Your task to perform on an android device: turn off improve location accuracy Image 0: 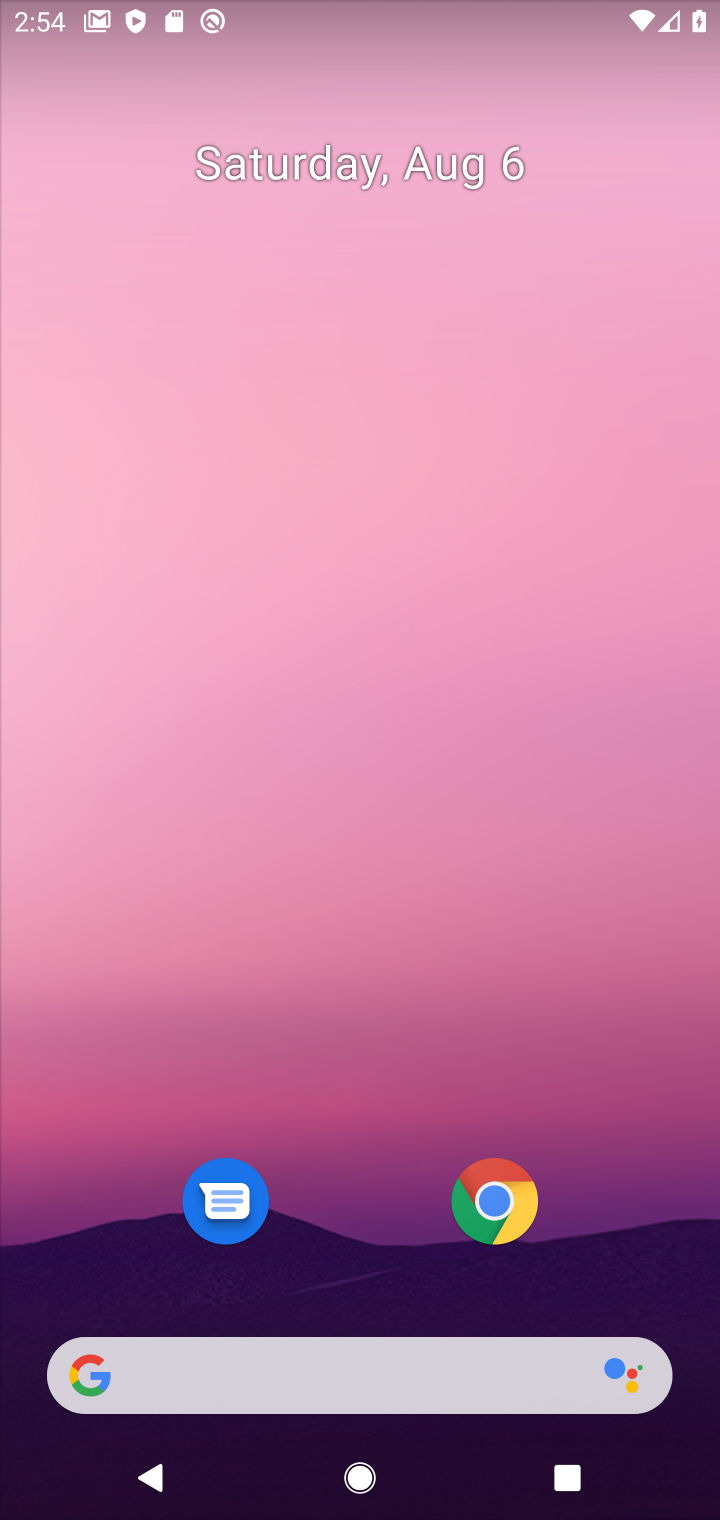
Step 0: press home button
Your task to perform on an android device: turn off improve location accuracy Image 1: 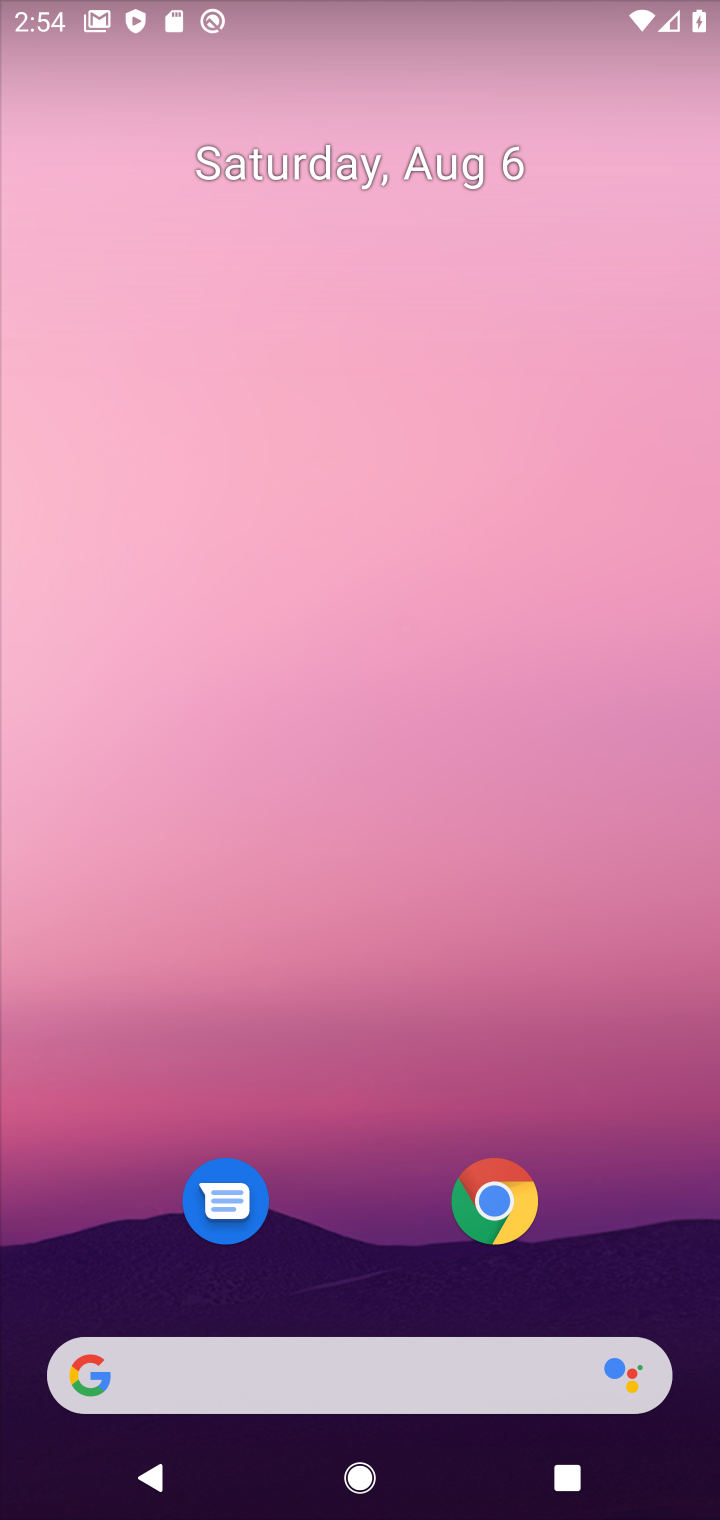
Step 1: click (370, 488)
Your task to perform on an android device: turn off improve location accuracy Image 2: 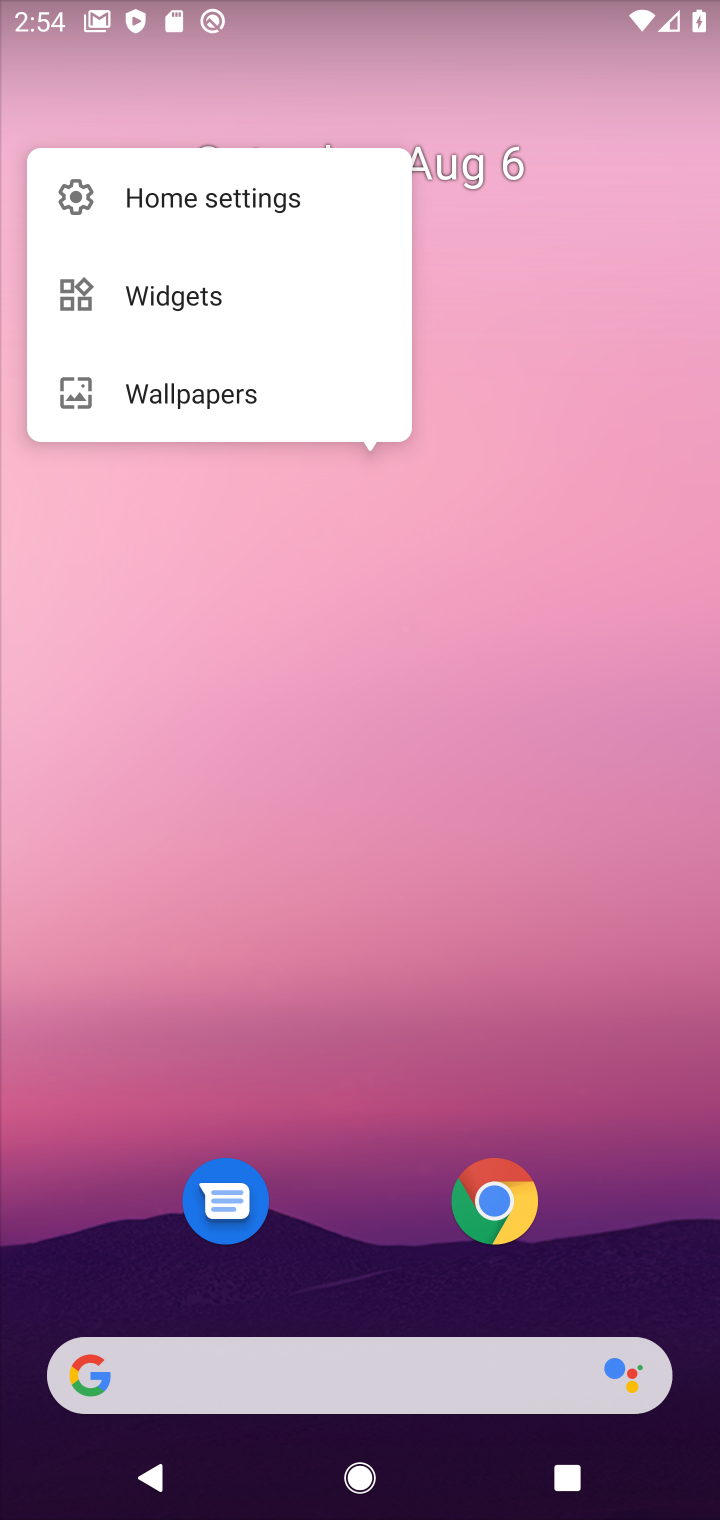
Step 2: click (362, 1482)
Your task to perform on an android device: turn off improve location accuracy Image 3: 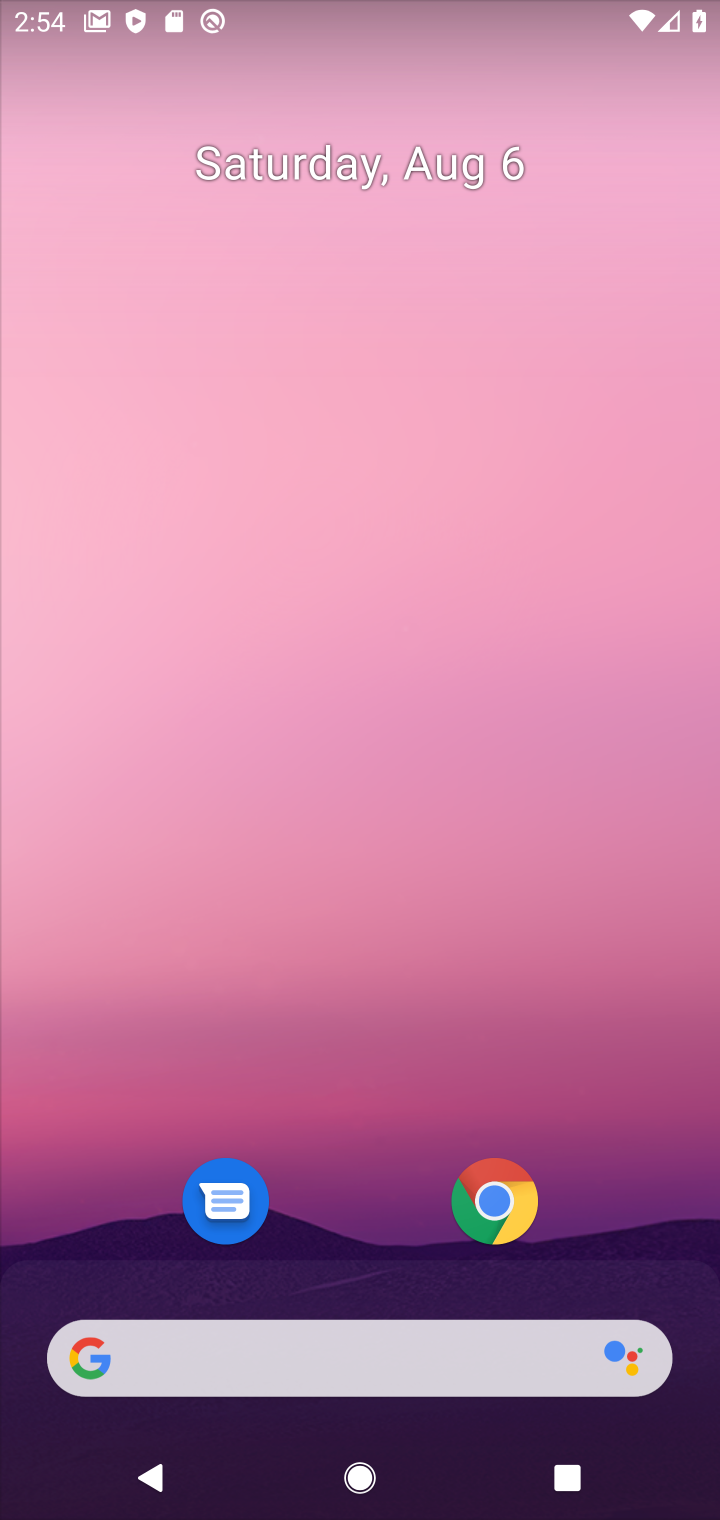
Step 3: drag from (65, 1416) to (458, 80)
Your task to perform on an android device: turn off improve location accuracy Image 4: 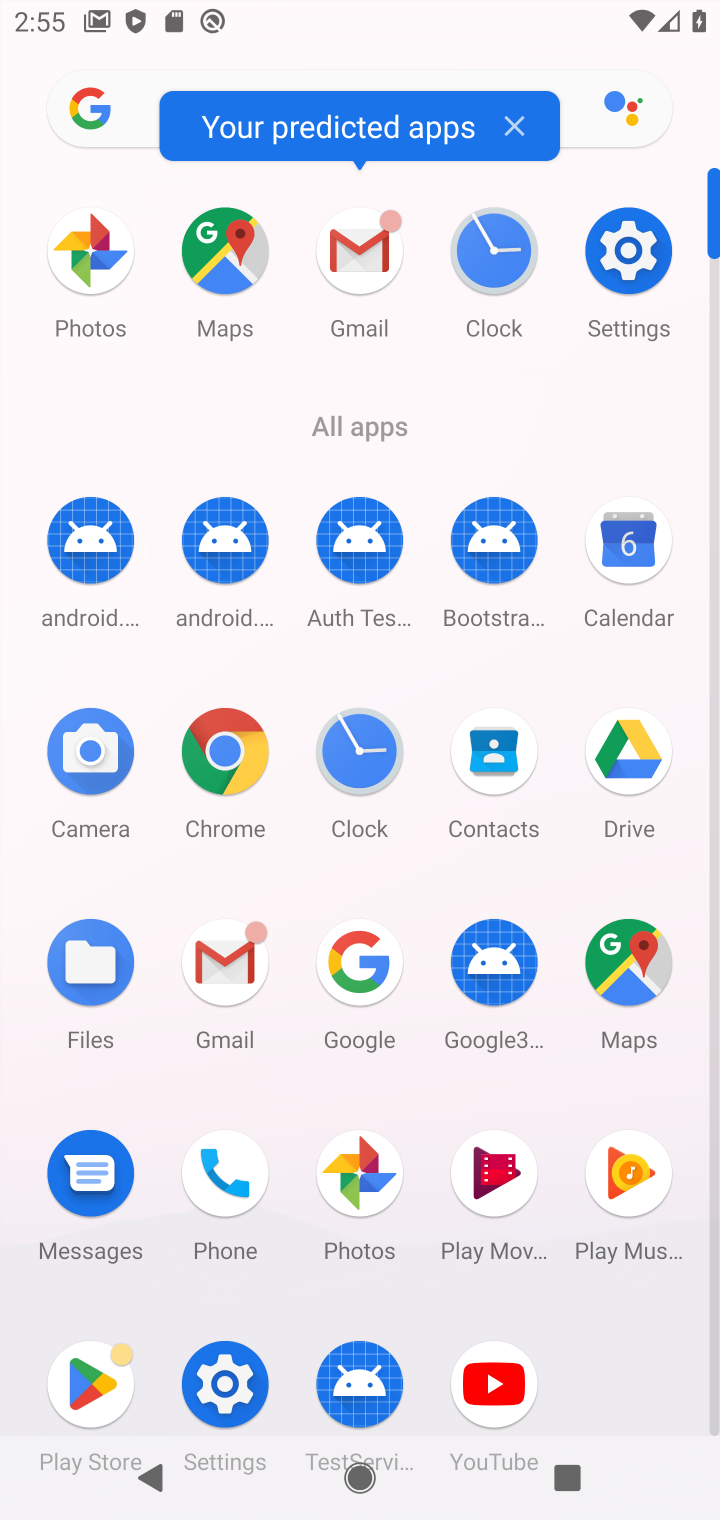
Step 4: click (639, 249)
Your task to perform on an android device: turn off improve location accuracy Image 5: 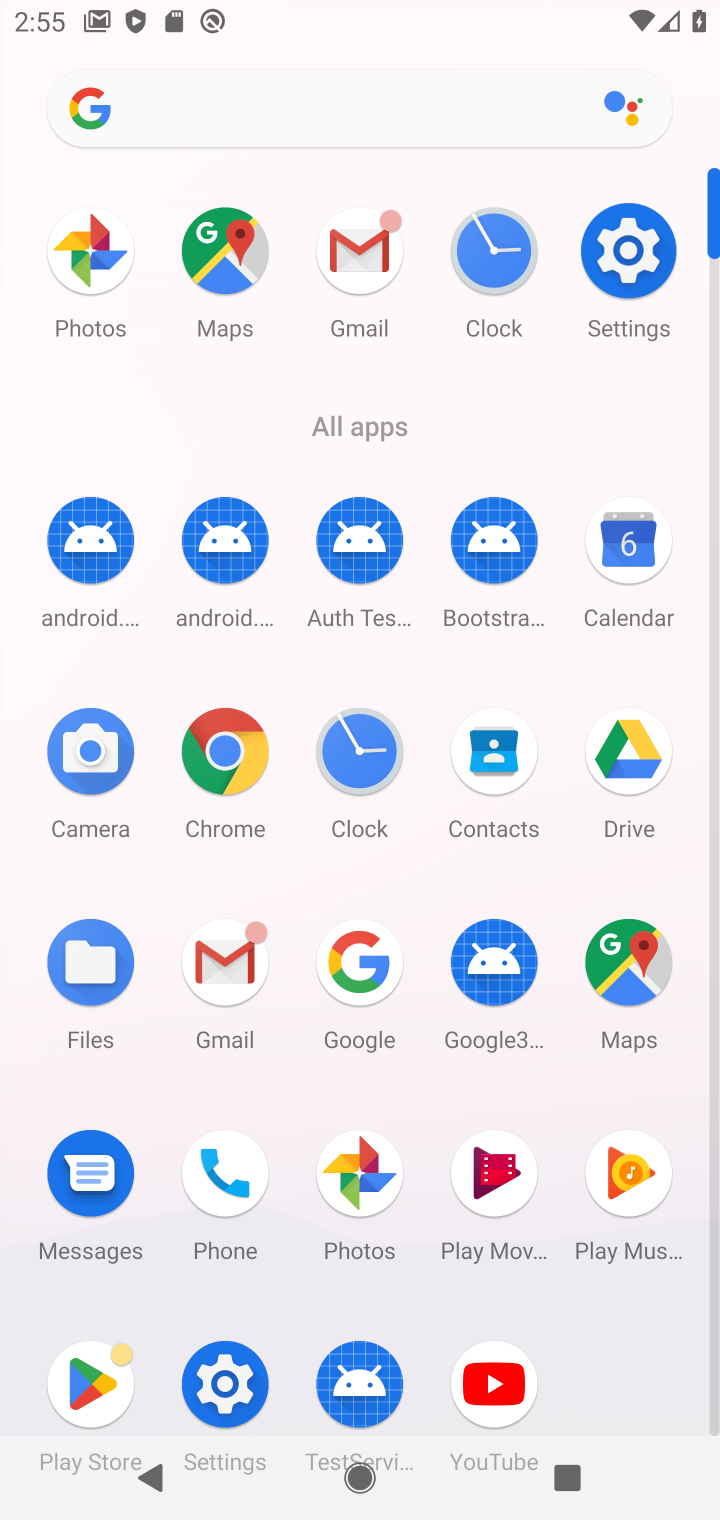
Step 5: click (639, 249)
Your task to perform on an android device: turn off improve location accuracy Image 6: 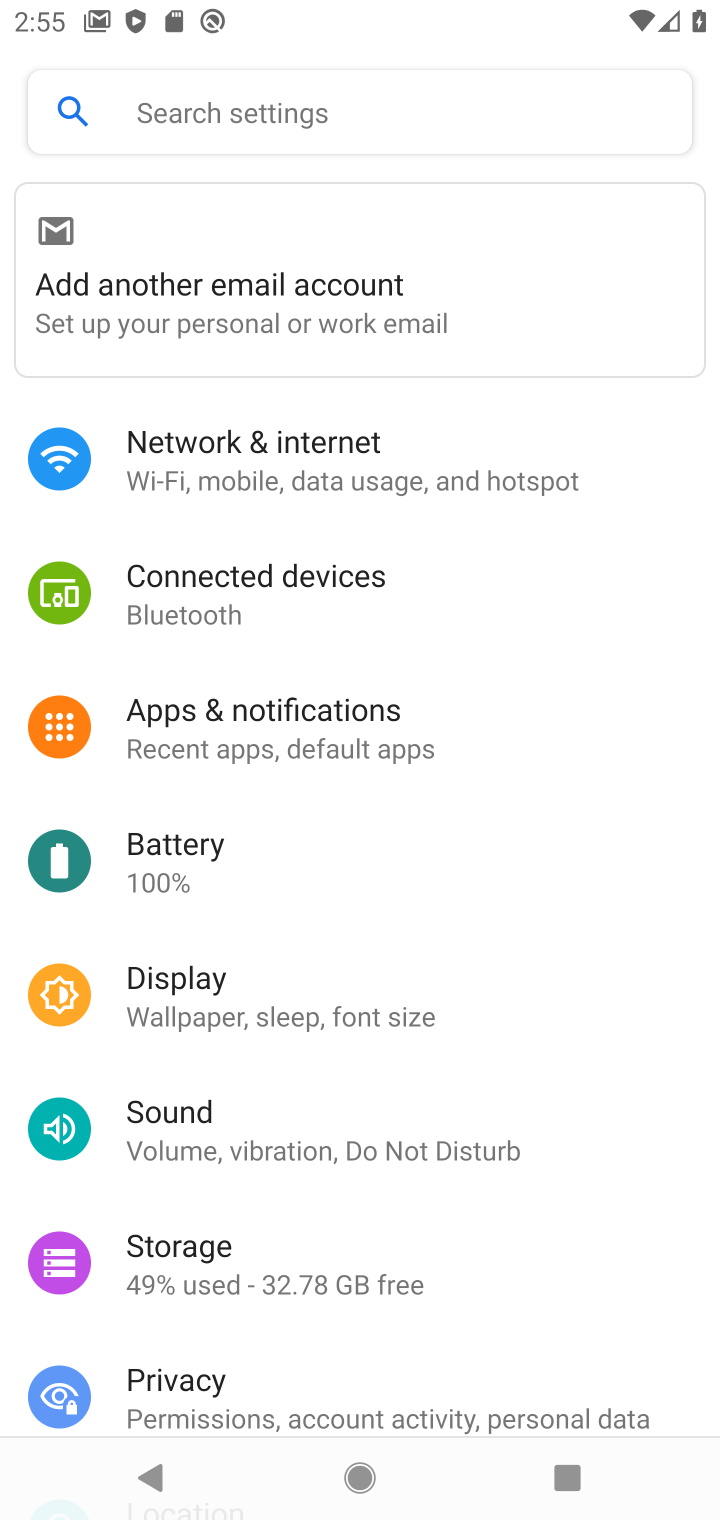
Step 6: drag from (490, 244) to (691, 1105)
Your task to perform on an android device: turn off improve location accuracy Image 7: 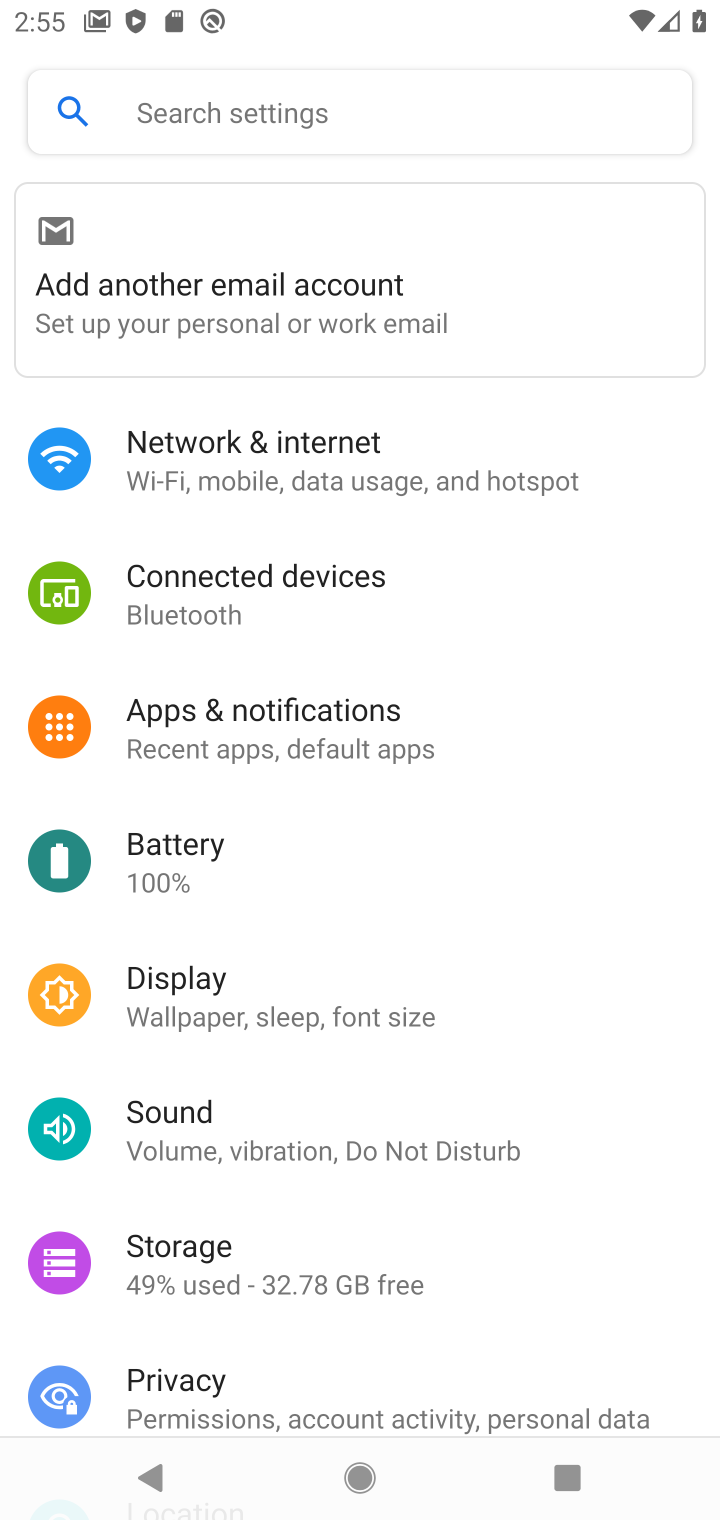
Step 7: drag from (370, 1059) to (501, 33)
Your task to perform on an android device: turn off improve location accuracy Image 8: 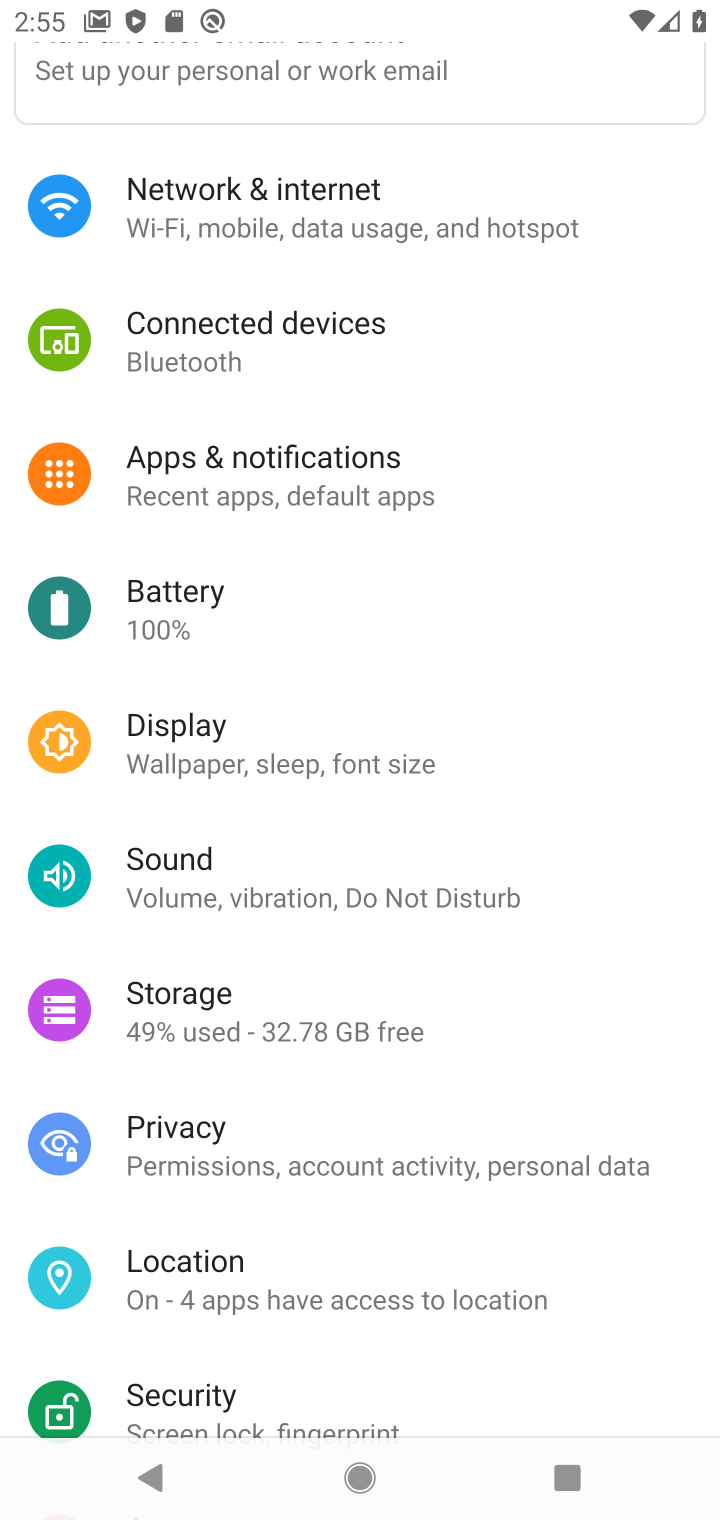
Step 8: click (300, 1270)
Your task to perform on an android device: turn off improve location accuracy Image 9: 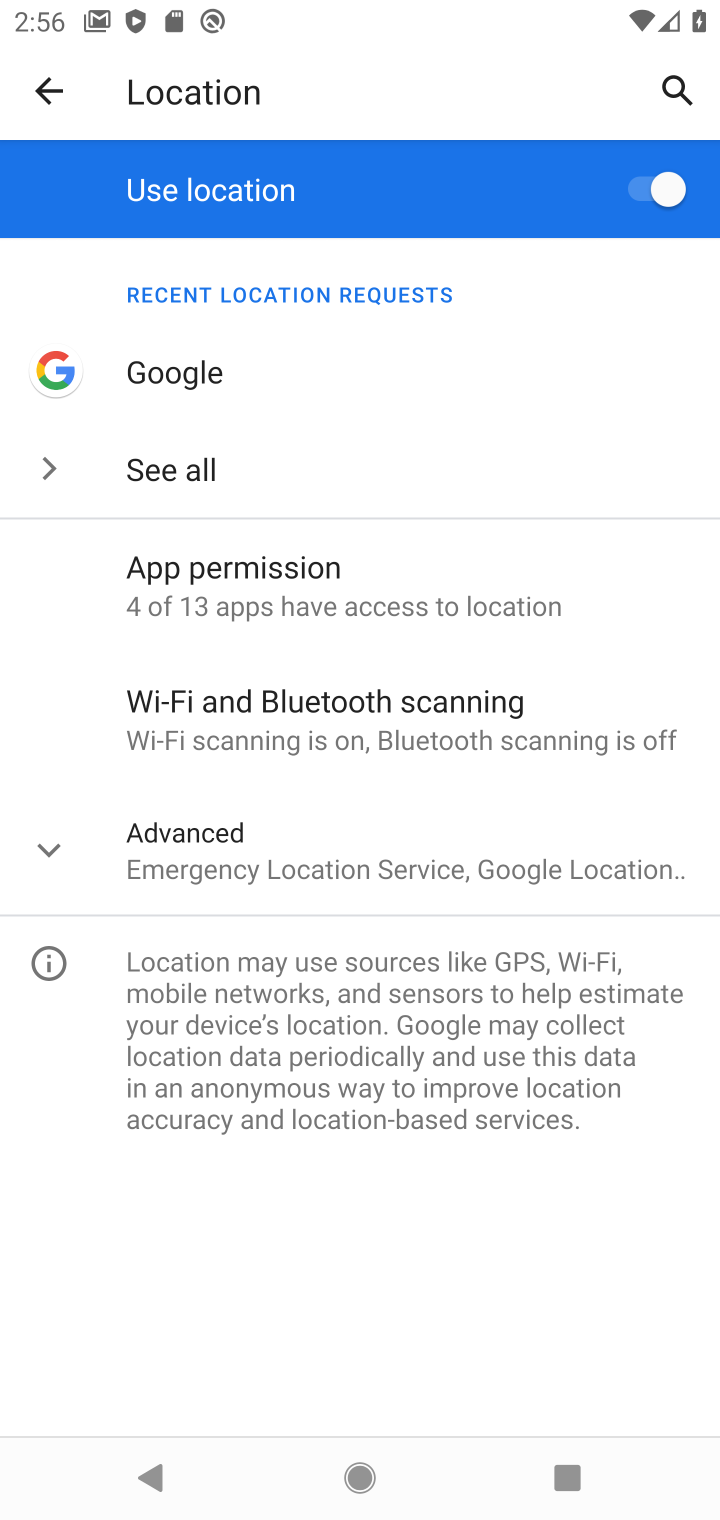
Step 9: click (329, 843)
Your task to perform on an android device: turn off improve location accuracy Image 10: 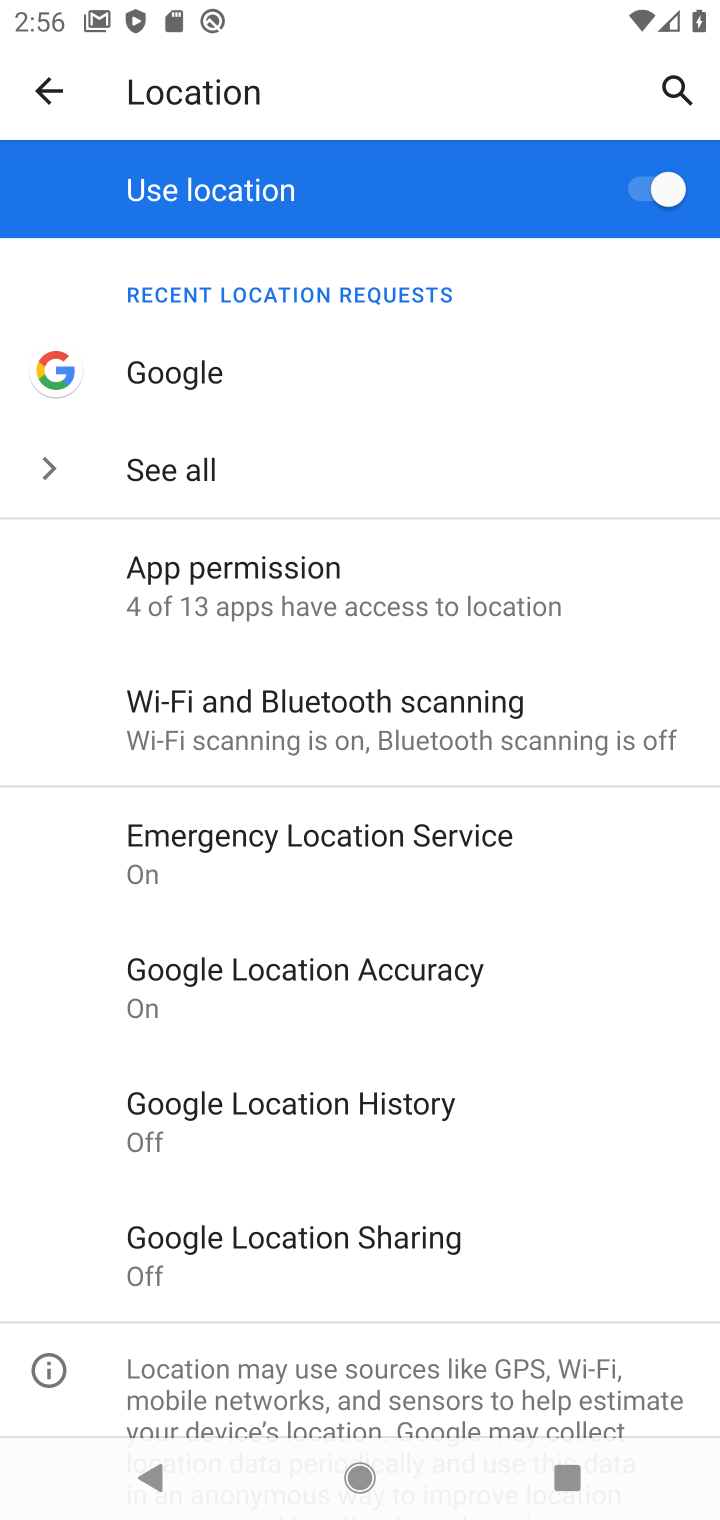
Step 10: click (416, 964)
Your task to perform on an android device: turn off improve location accuracy Image 11: 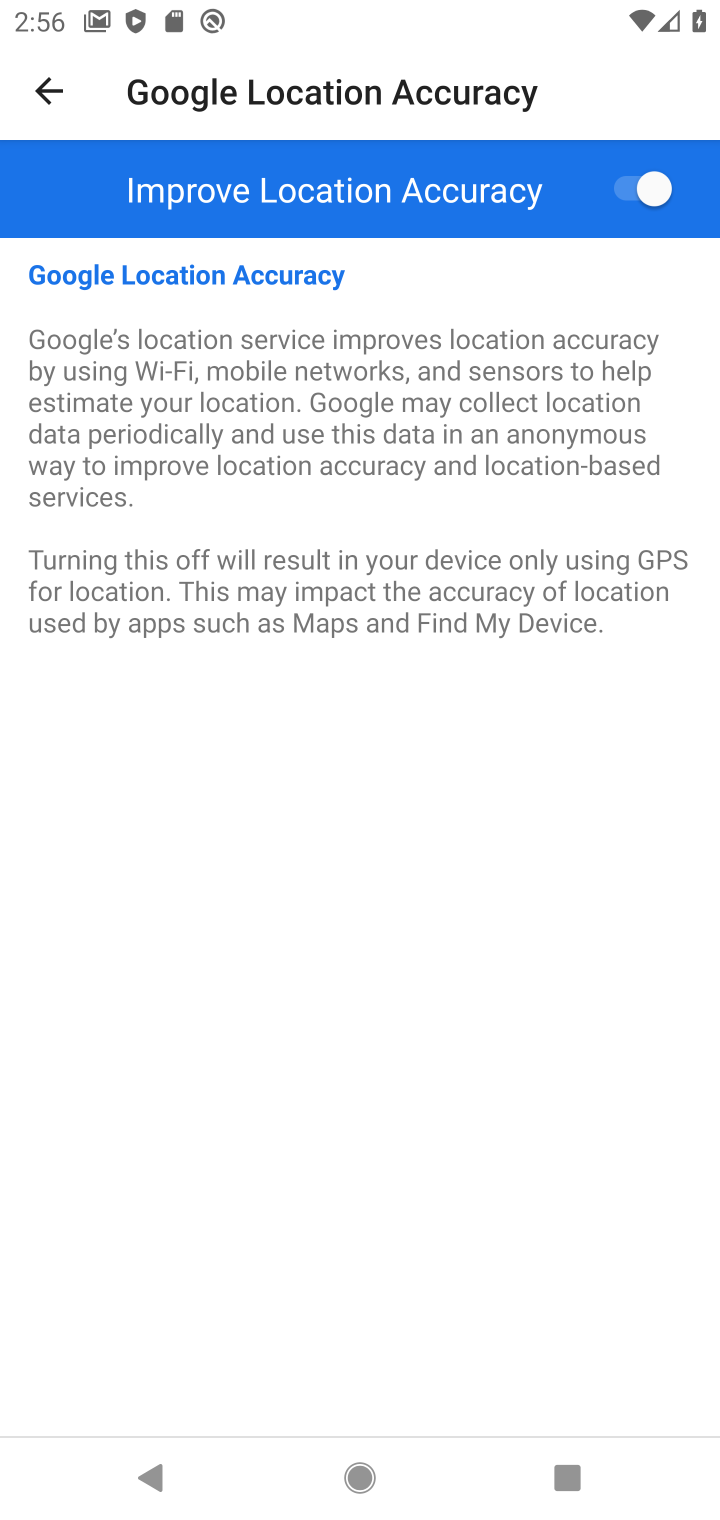
Step 11: click (670, 175)
Your task to perform on an android device: turn off improve location accuracy Image 12: 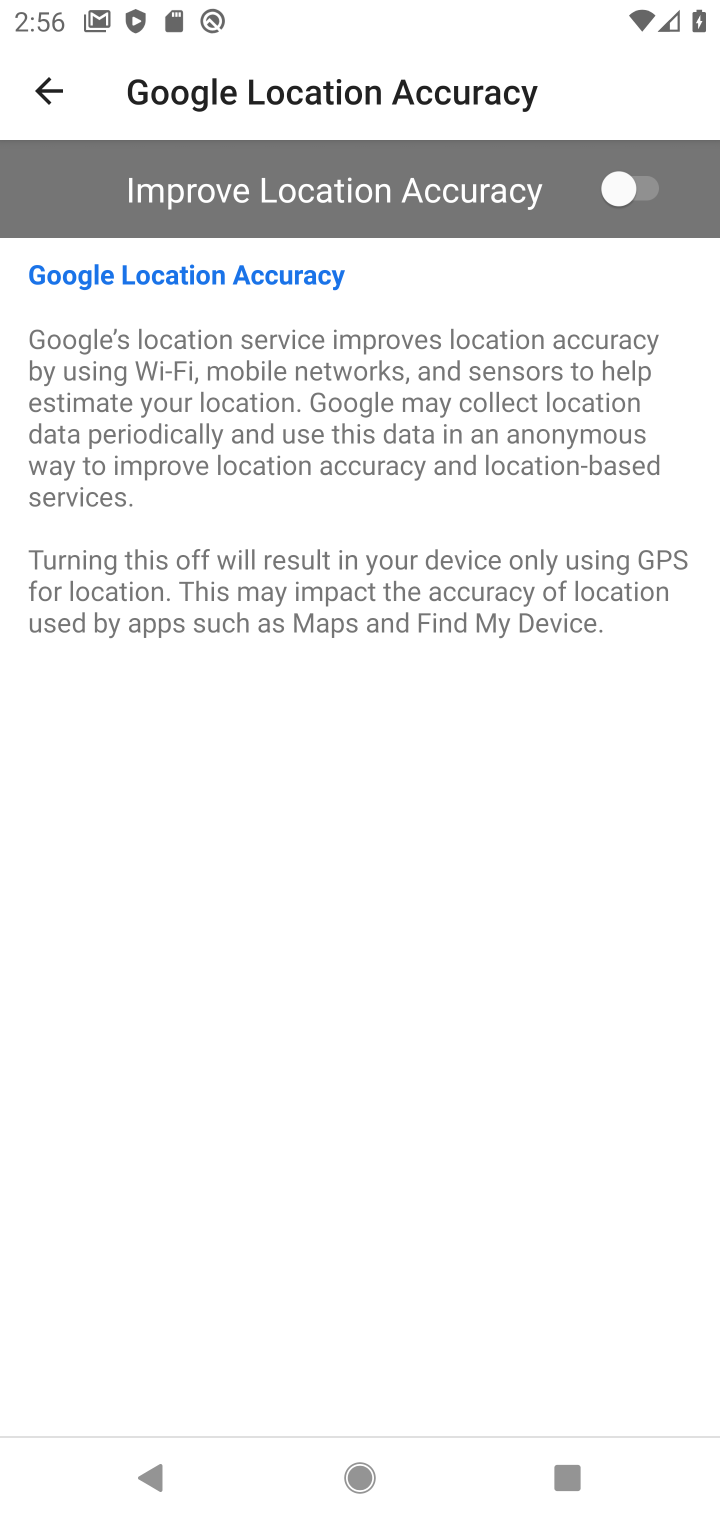
Step 12: task complete